Your task to perform on an android device: Open settings Image 0: 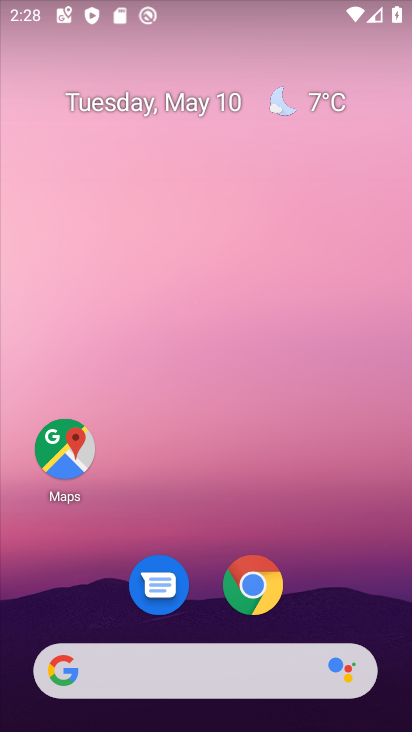
Step 0: drag from (346, 523) to (305, 0)
Your task to perform on an android device: Open settings Image 1: 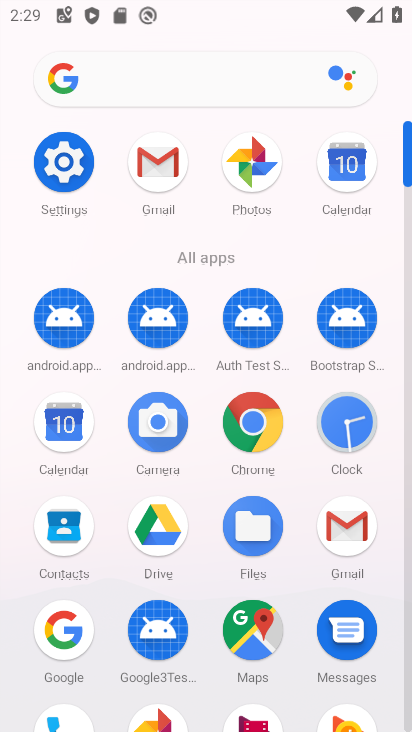
Step 1: click (69, 157)
Your task to perform on an android device: Open settings Image 2: 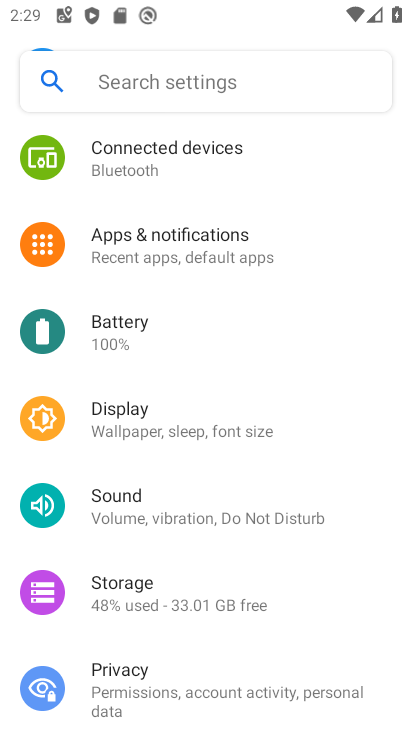
Step 2: task complete